Your task to perform on an android device: Go to CNN.com Image 0: 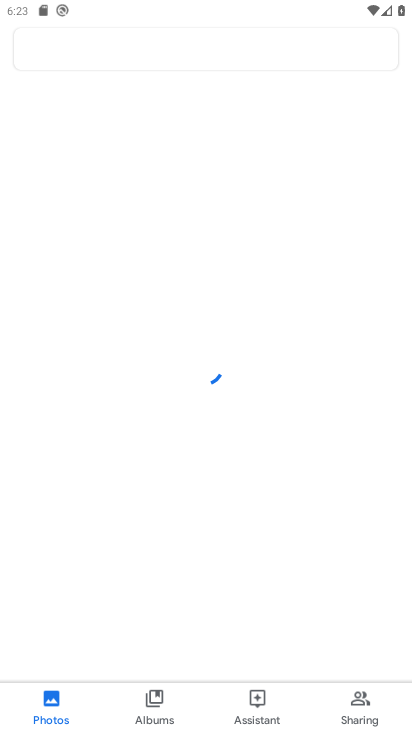
Step 0: press home button
Your task to perform on an android device: Go to CNN.com Image 1: 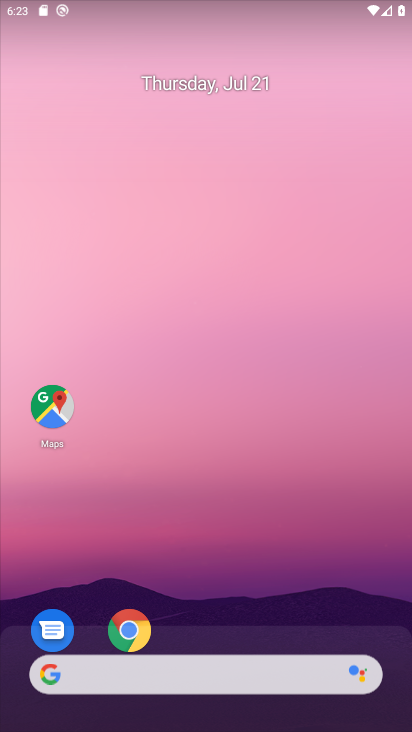
Step 1: click (130, 629)
Your task to perform on an android device: Go to CNN.com Image 2: 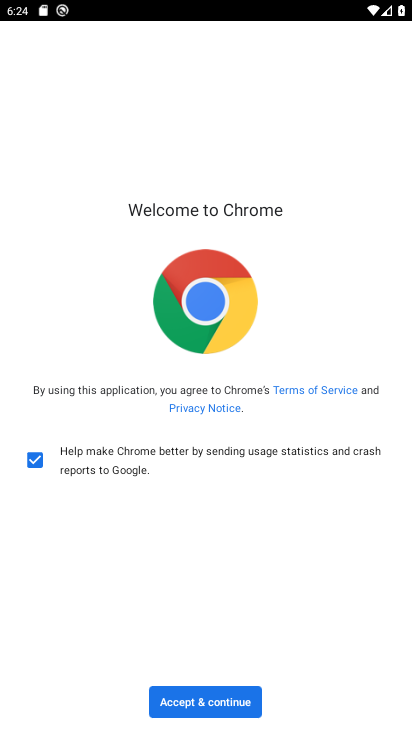
Step 2: click (202, 699)
Your task to perform on an android device: Go to CNN.com Image 3: 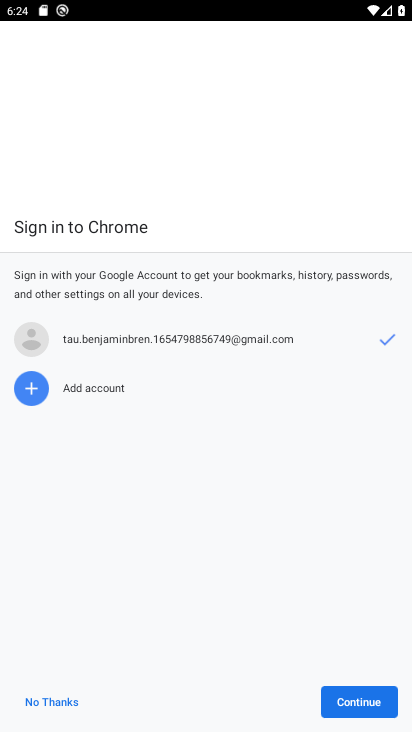
Step 3: click (356, 706)
Your task to perform on an android device: Go to CNN.com Image 4: 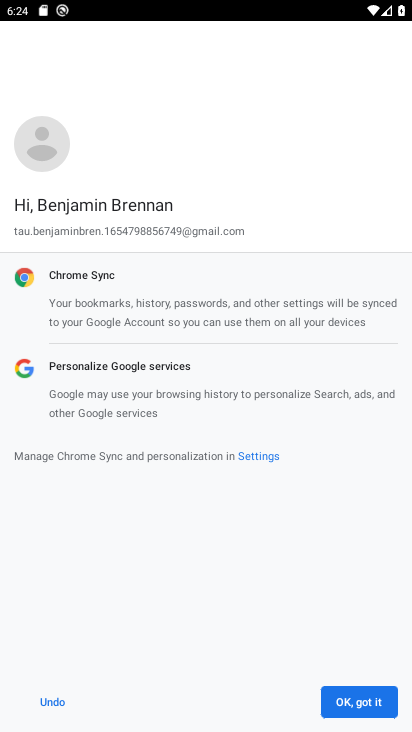
Step 4: click (356, 706)
Your task to perform on an android device: Go to CNN.com Image 5: 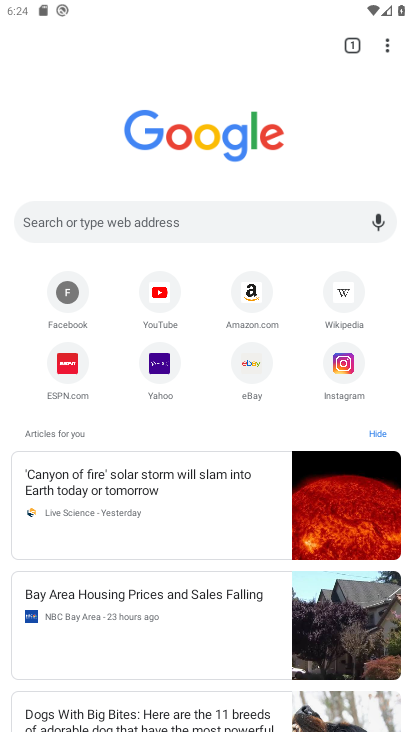
Step 5: click (142, 216)
Your task to perform on an android device: Go to CNN.com Image 6: 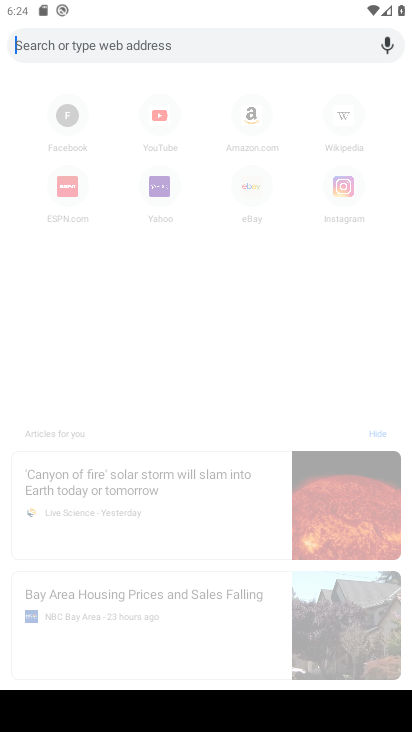
Step 6: type "CNN.com"
Your task to perform on an android device: Go to CNN.com Image 7: 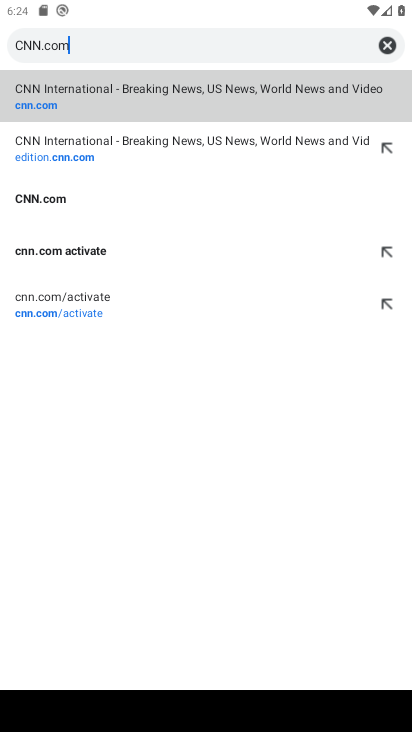
Step 7: click (61, 197)
Your task to perform on an android device: Go to CNN.com Image 8: 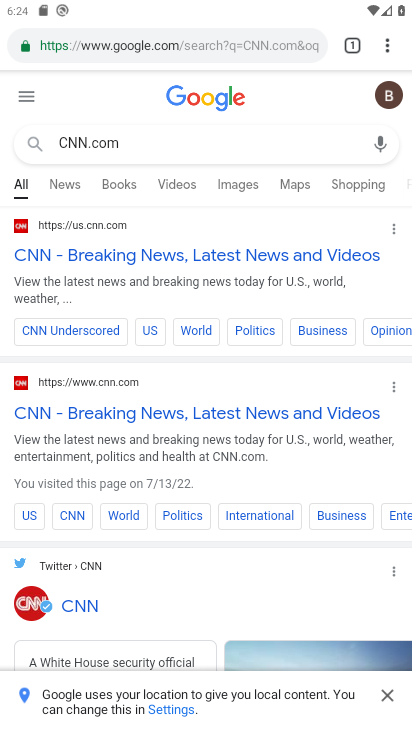
Step 8: click (159, 255)
Your task to perform on an android device: Go to CNN.com Image 9: 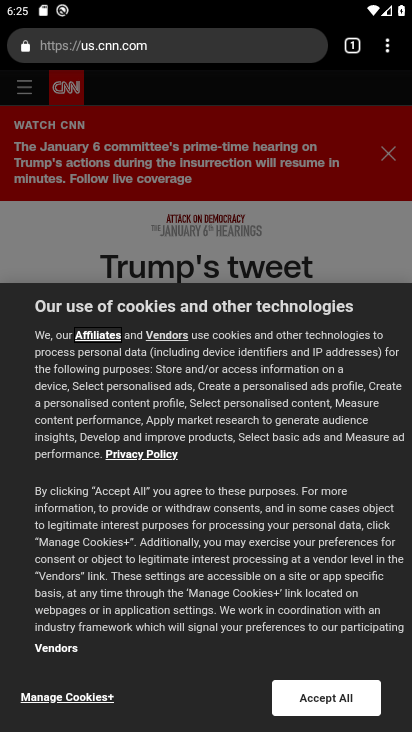
Step 9: click (324, 693)
Your task to perform on an android device: Go to CNN.com Image 10: 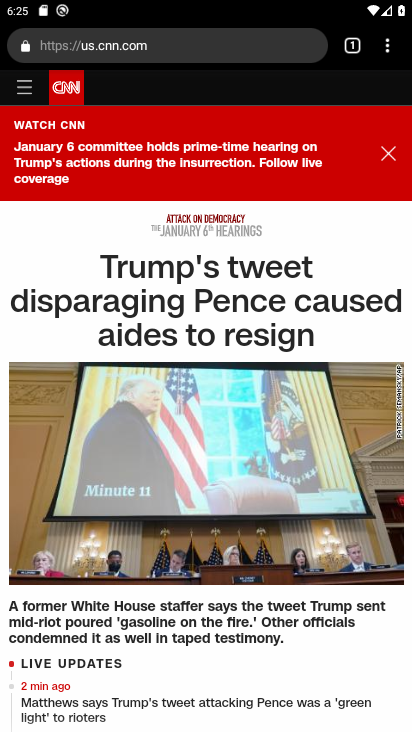
Step 10: task complete